Your task to perform on an android device: choose inbox layout in the gmail app Image 0: 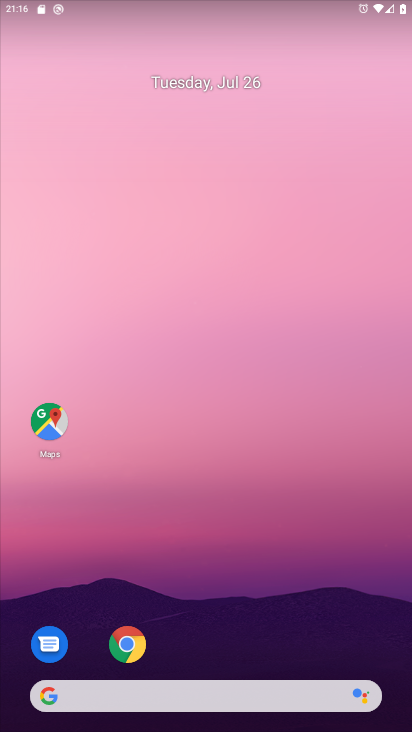
Step 0: drag from (193, 638) to (248, 100)
Your task to perform on an android device: choose inbox layout in the gmail app Image 1: 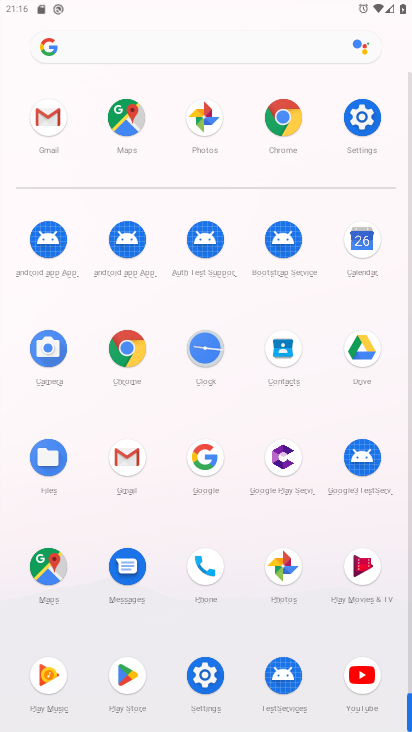
Step 1: click (117, 451)
Your task to perform on an android device: choose inbox layout in the gmail app Image 2: 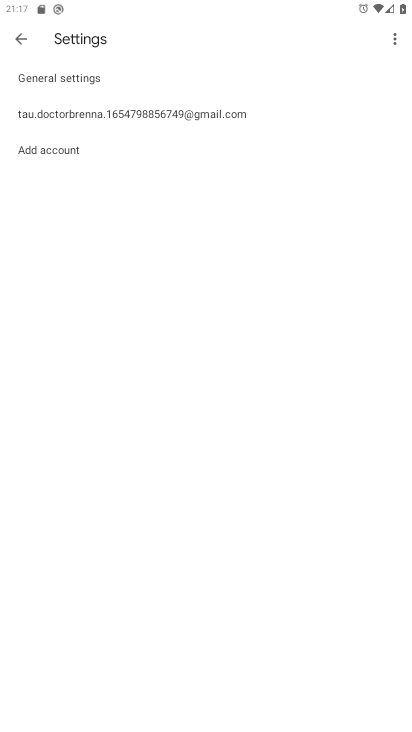
Step 2: click (58, 112)
Your task to perform on an android device: choose inbox layout in the gmail app Image 3: 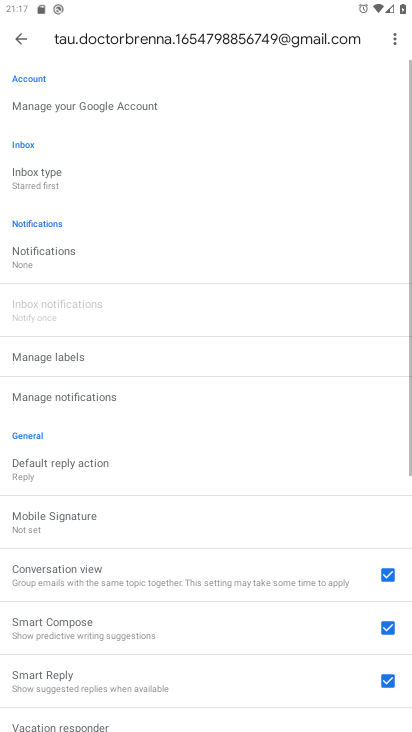
Step 3: click (46, 180)
Your task to perform on an android device: choose inbox layout in the gmail app Image 4: 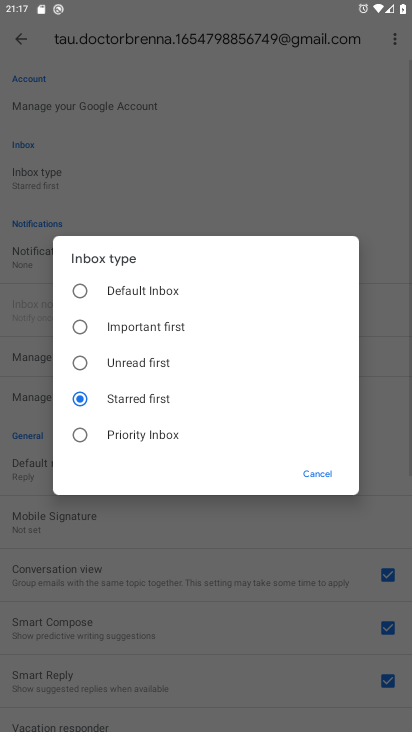
Step 4: click (136, 363)
Your task to perform on an android device: choose inbox layout in the gmail app Image 5: 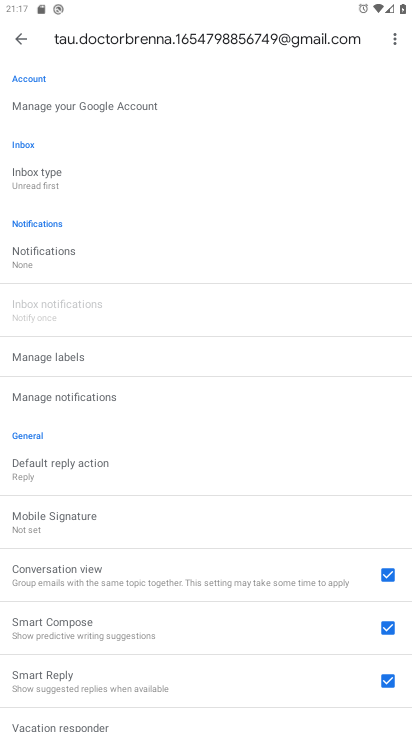
Step 5: task complete